Your task to perform on an android device: Go to Yahoo.com Image 0: 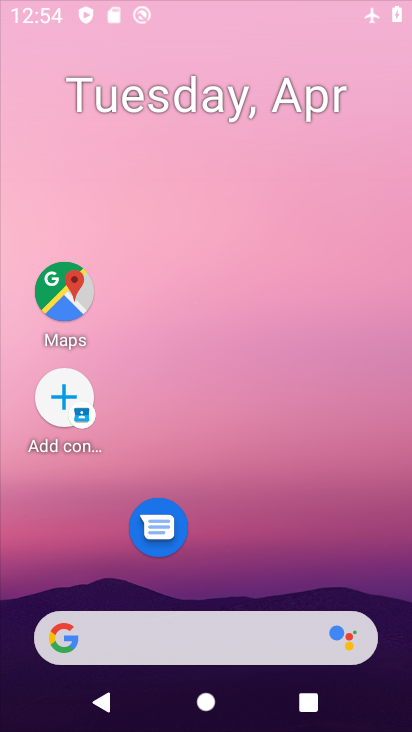
Step 0: click (306, 140)
Your task to perform on an android device: Go to Yahoo.com Image 1: 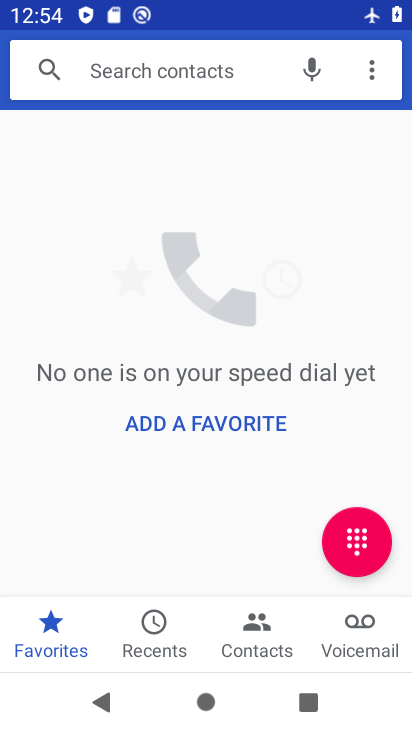
Step 1: press home button
Your task to perform on an android device: Go to Yahoo.com Image 2: 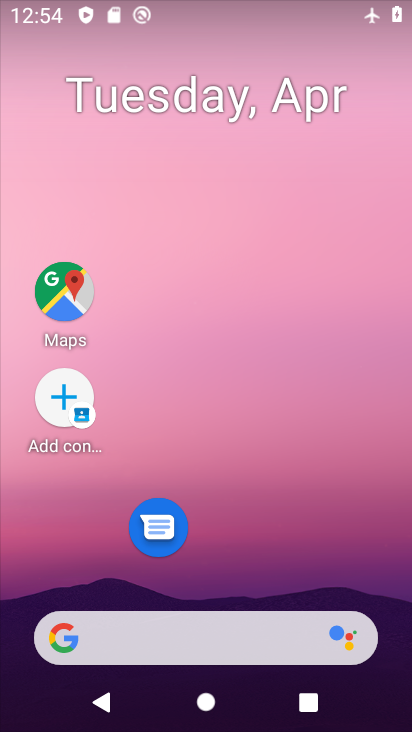
Step 2: drag from (247, 555) to (321, 45)
Your task to perform on an android device: Go to Yahoo.com Image 3: 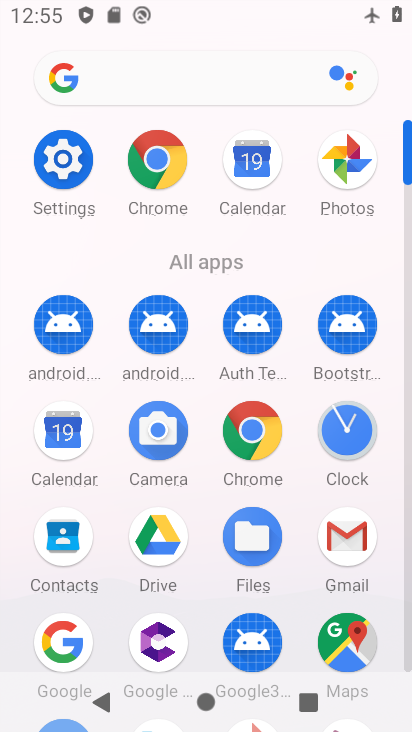
Step 3: click (154, 155)
Your task to perform on an android device: Go to Yahoo.com Image 4: 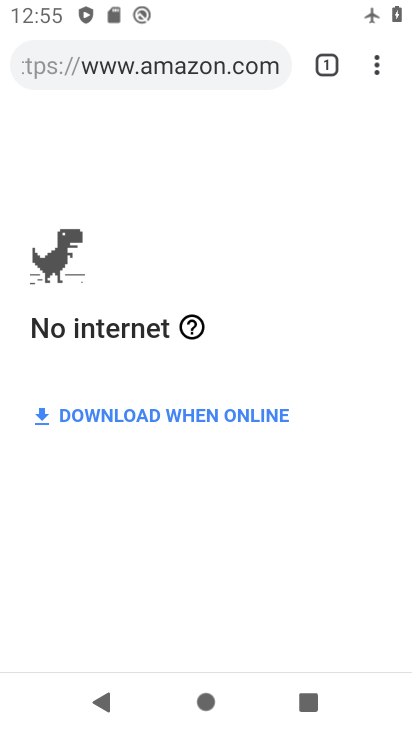
Step 4: click (255, 65)
Your task to perform on an android device: Go to Yahoo.com Image 5: 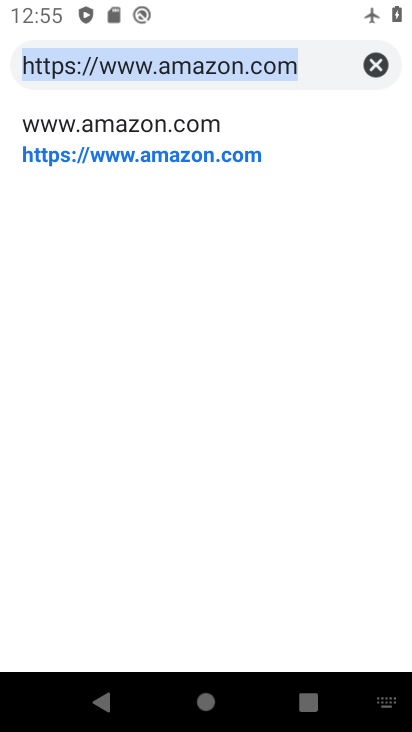
Step 5: click (370, 68)
Your task to perform on an android device: Go to Yahoo.com Image 6: 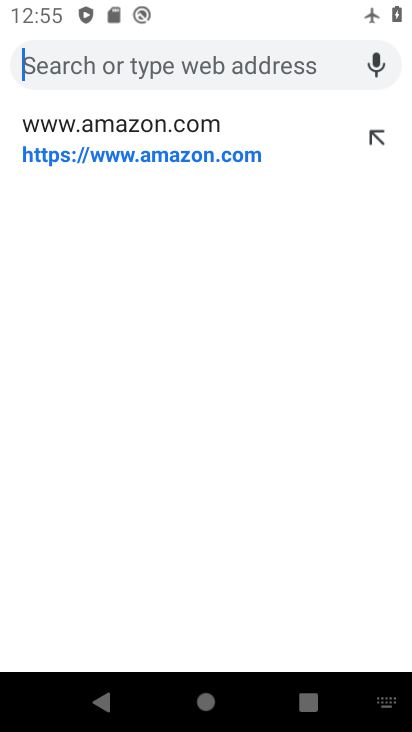
Step 6: click (303, 60)
Your task to perform on an android device: Go to Yahoo.com Image 7: 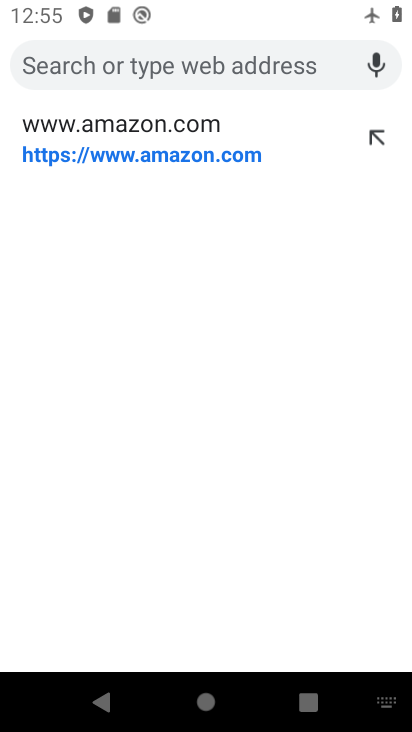
Step 7: type "Yahoo.com"
Your task to perform on an android device: Go to Yahoo.com Image 8: 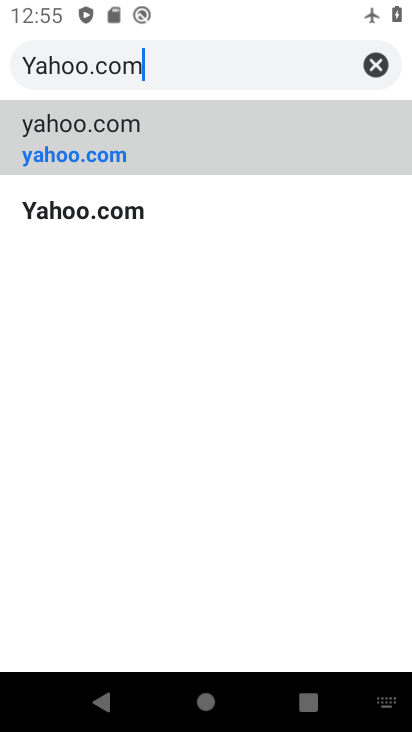
Step 8: type ""
Your task to perform on an android device: Go to Yahoo.com Image 9: 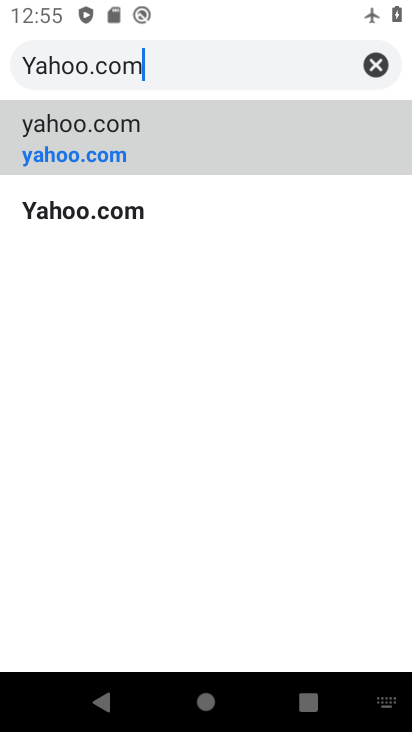
Step 9: click (115, 210)
Your task to perform on an android device: Go to Yahoo.com Image 10: 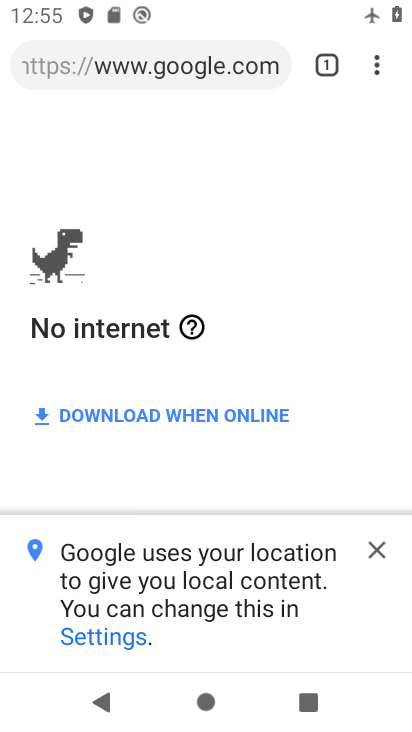
Step 10: task complete